Your task to perform on an android device: Add "beats solo 3" to the cart on target.com, then select checkout. Image 0: 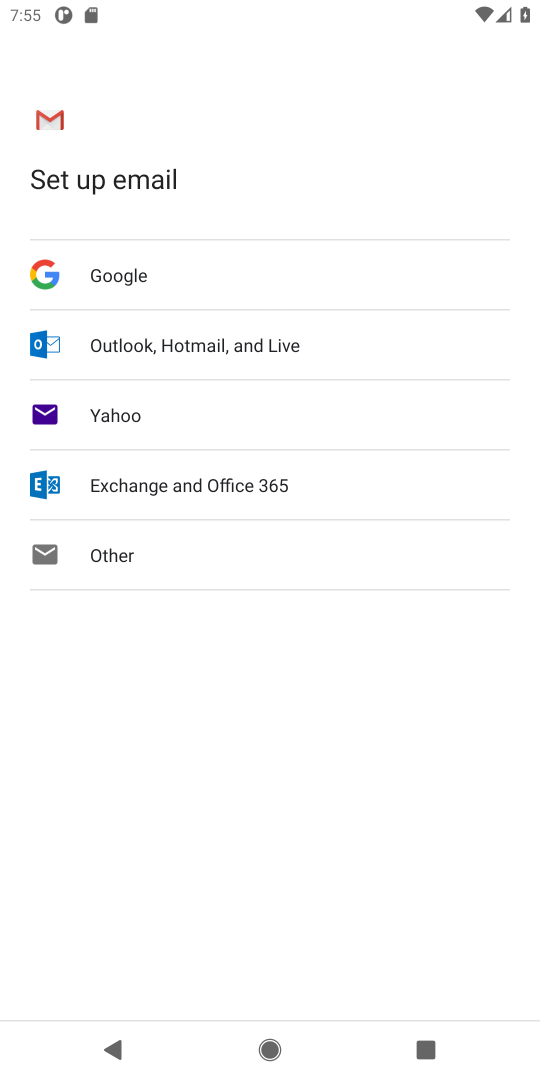
Step 0: press home button
Your task to perform on an android device: Add "beats solo 3" to the cart on target.com, then select checkout. Image 1: 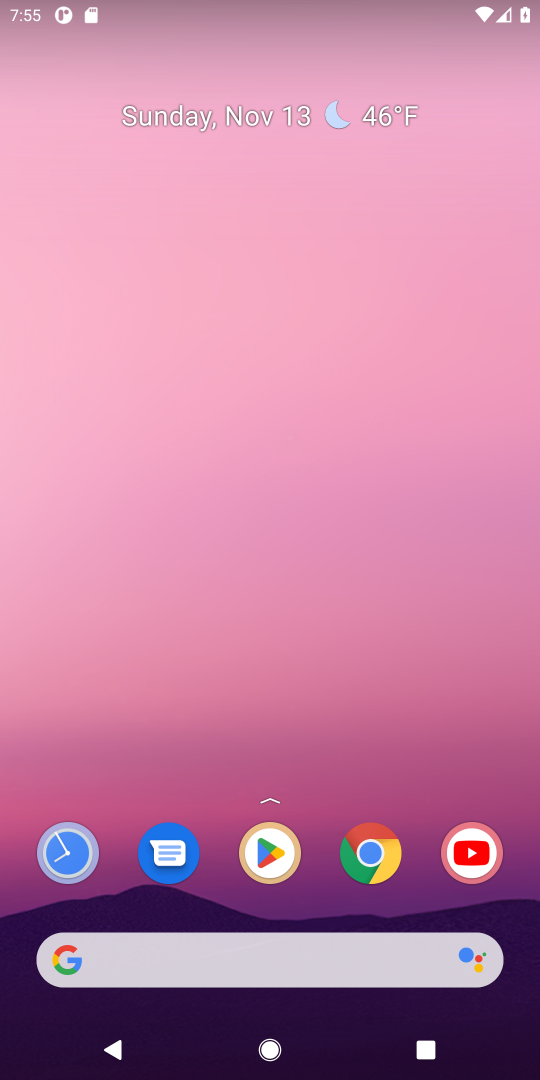
Step 1: click (115, 950)
Your task to perform on an android device: Add "beats solo 3" to the cart on target.com, then select checkout. Image 2: 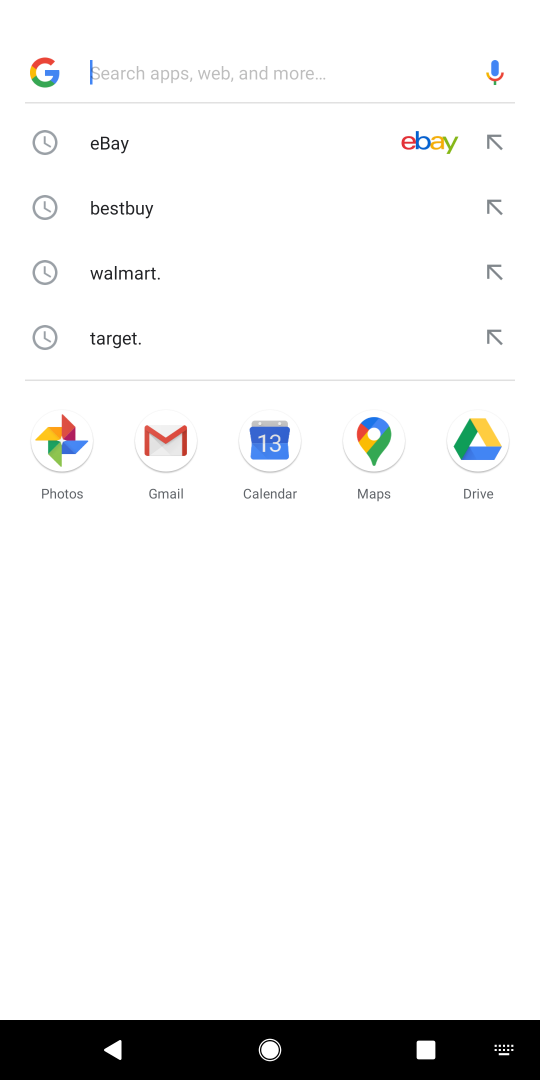
Step 2: type " target.com"
Your task to perform on an android device: Add "beats solo 3" to the cart on target.com, then select checkout. Image 3: 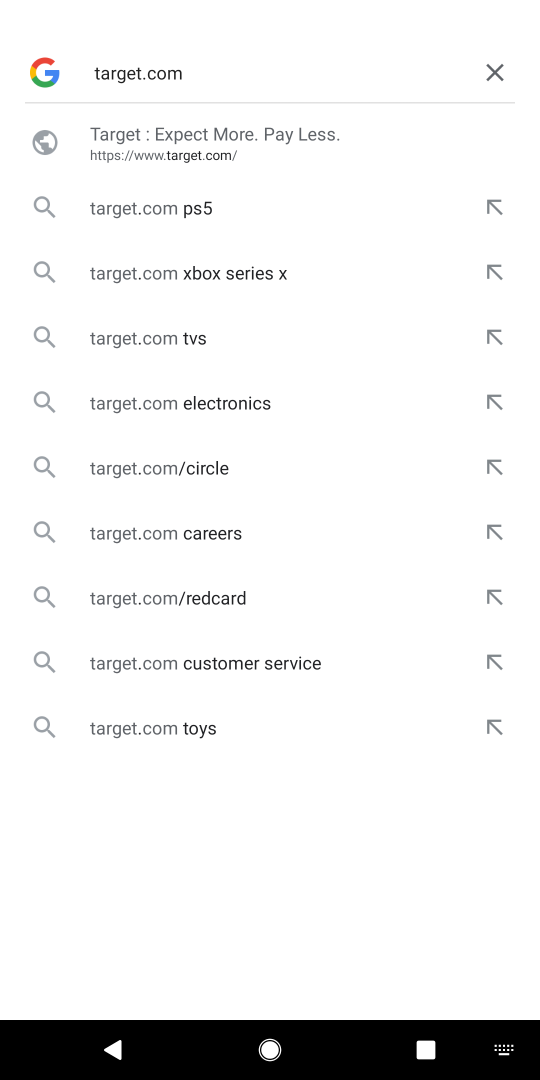
Step 3: press enter
Your task to perform on an android device: Add "beats solo 3" to the cart on target.com, then select checkout. Image 4: 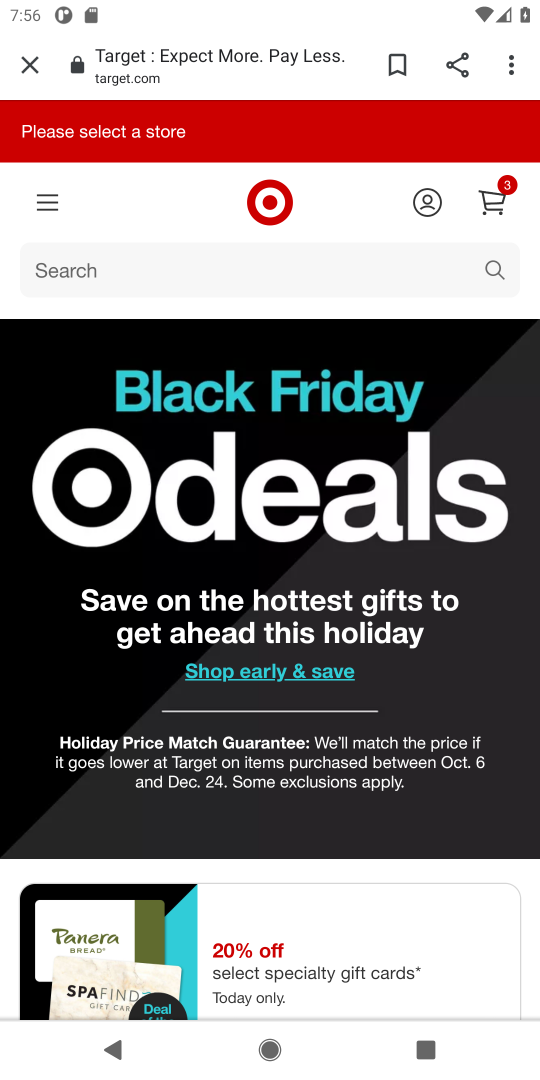
Step 4: click (94, 263)
Your task to perform on an android device: Add "beats solo 3" to the cart on target.com, then select checkout. Image 5: 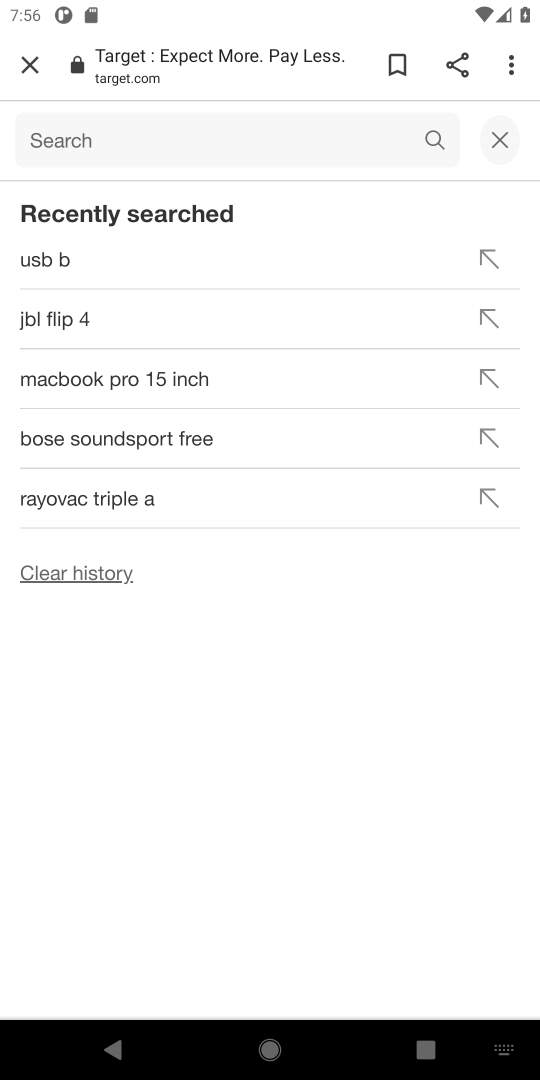
Step 5: type "beats solo 3"
Your task to perform on an android device: Add "beats solo 3" to the cart on target.com, then select checkout. Image 6: 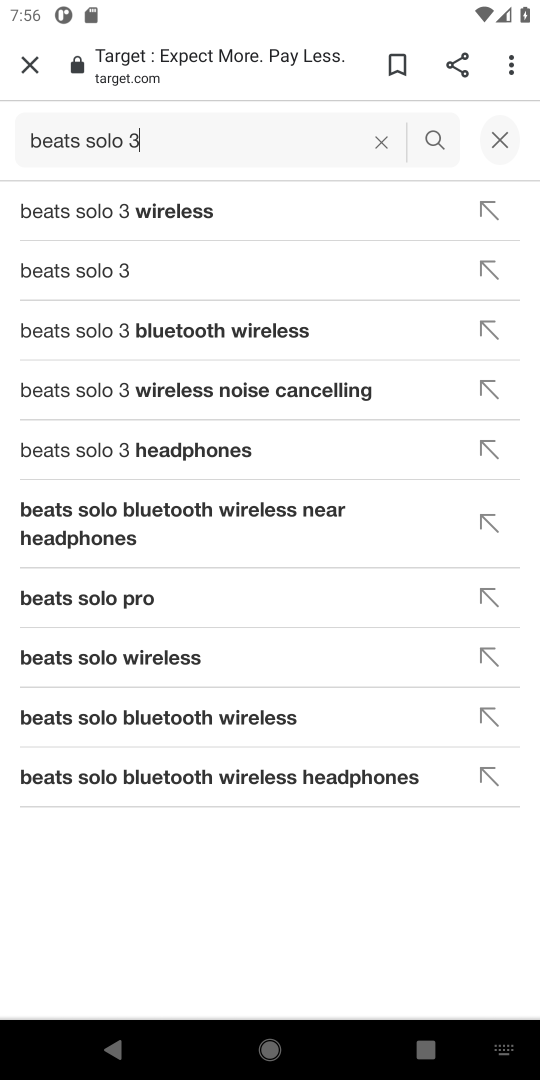
Step 6: press enter
Your task to perform on an android device: Add "beats solo 3" to the cart on target.com, then select checkout. Image 7: 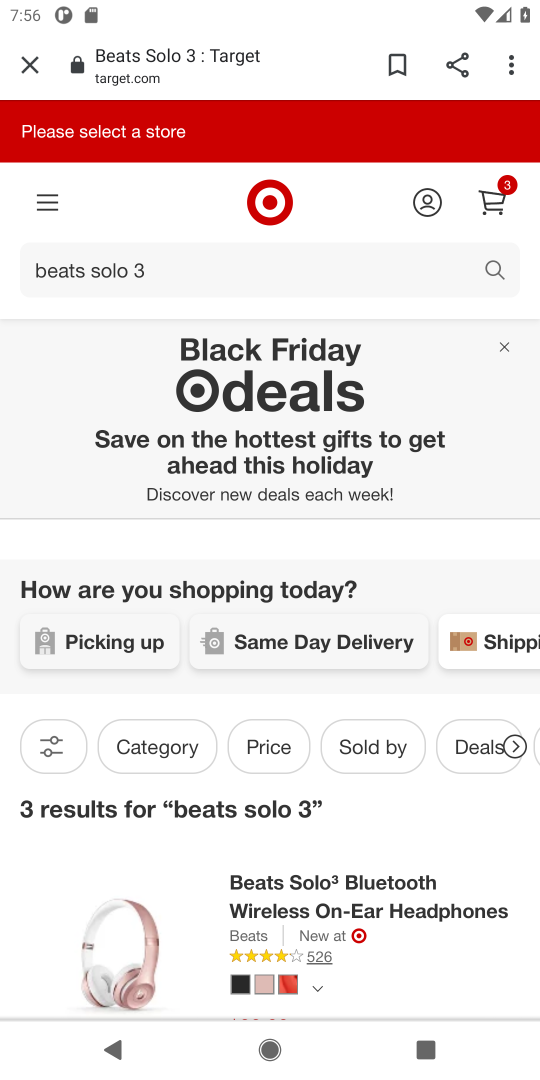
Step 7: drag from (334, 938) to (382, 578)
Your task to perform on an android device: Add "beats solo 3" to the cart on target.com, then select checkout. Image 8: 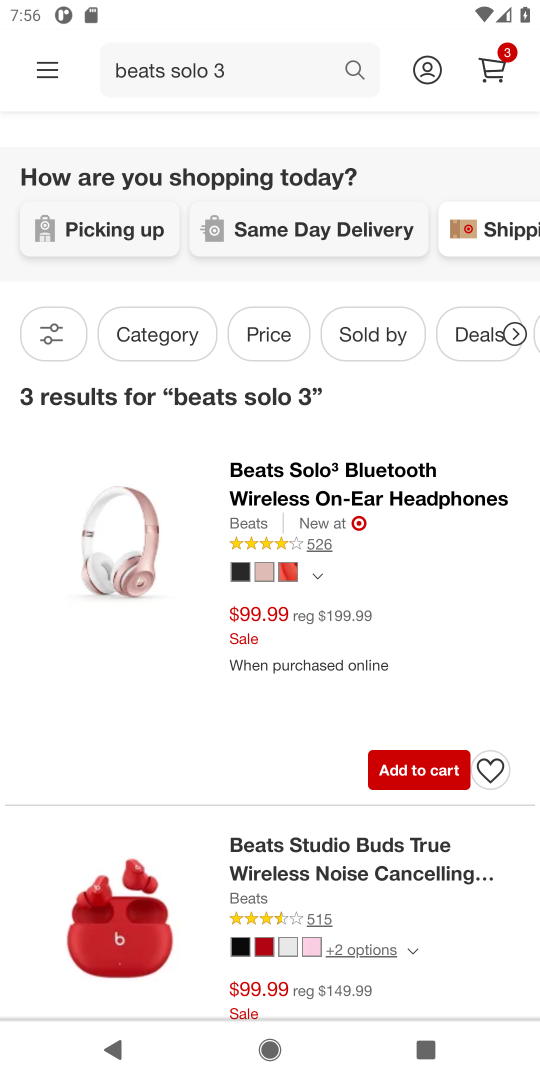
Step 8: click (409, 773)
Your task to perform on an android device: Add "beats solo 3" to the cart on target.com, then select checkout. Image 9: 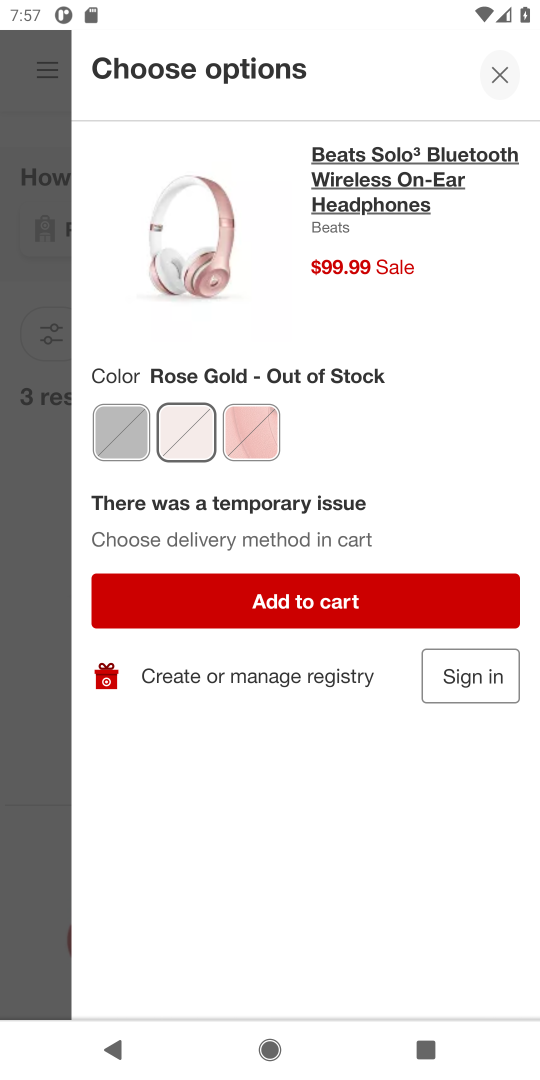
Step 9: click (295, 603)
Your task to perform on an android device: Add "beats solo 3" to the cart on target.com, then select checkout. Image 10: 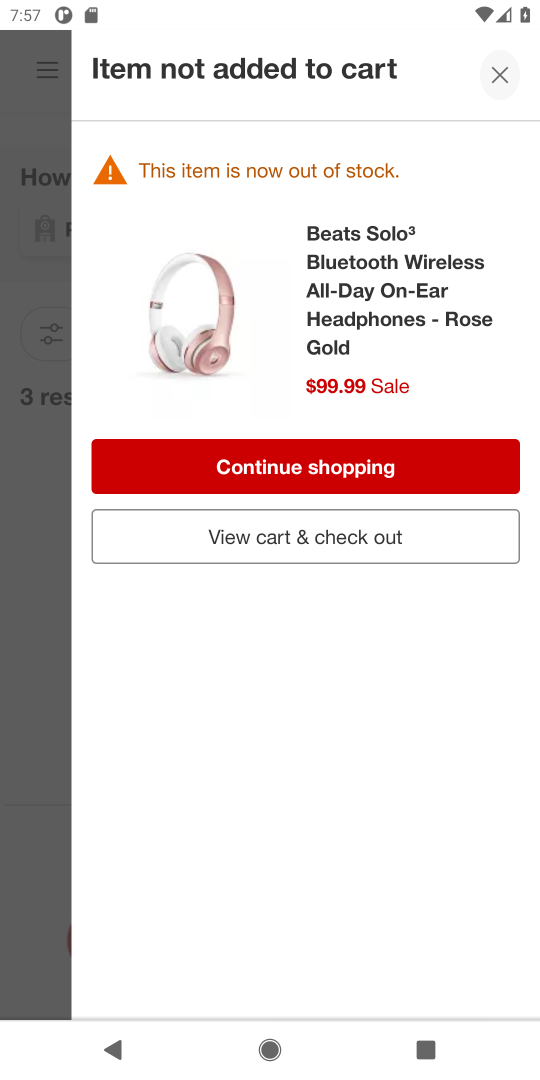
Step 10: click (274, 529)
Your task to perform on an android device: Add "beats solo 3" to the cart on target.com, then select checkout. Image 11: 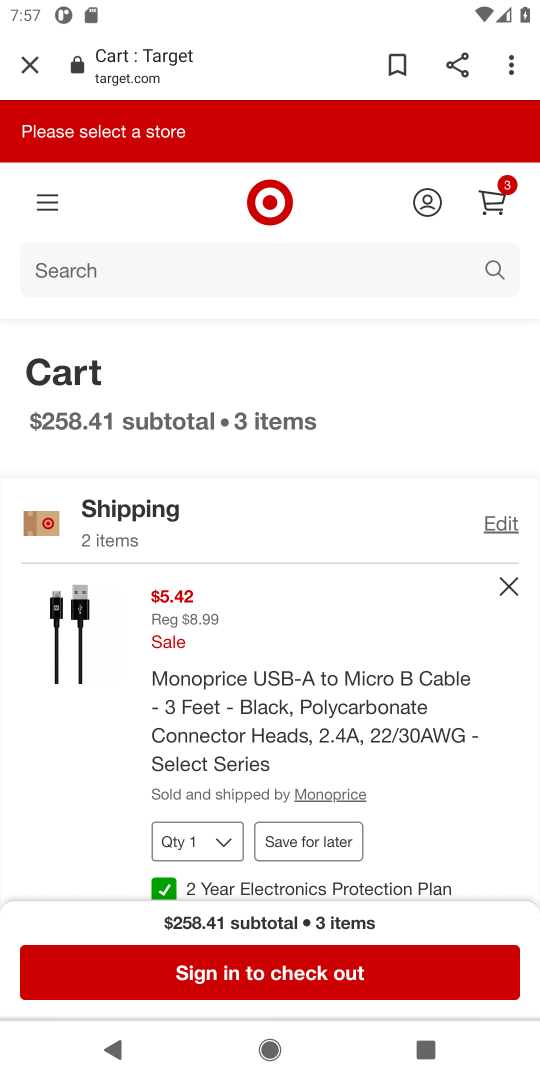
Step 11: click (317, 985)
Your task to perform on an android device: Add "beats solo 3" to the cart on target.com, then select checkout. Image 12: 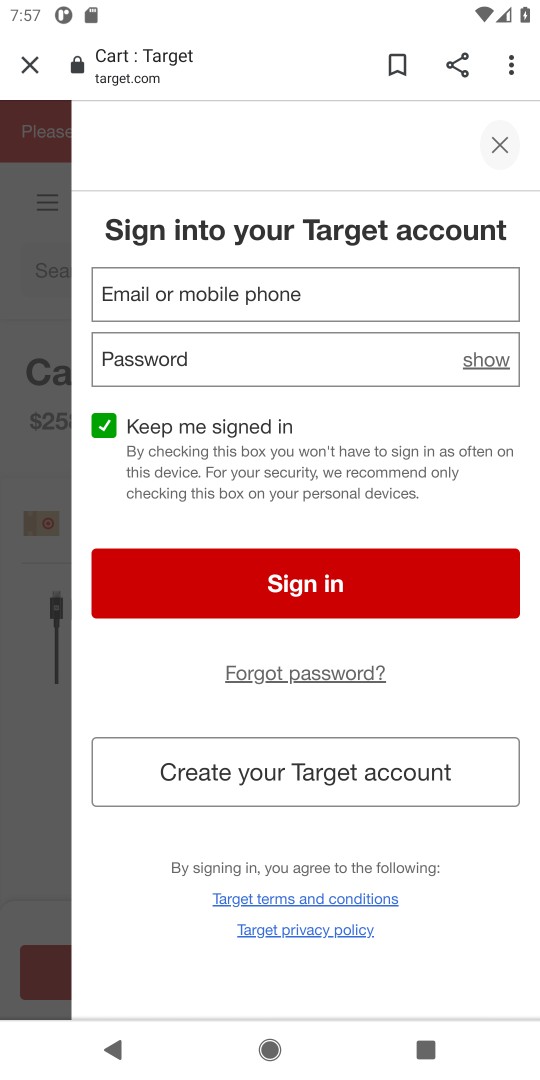
Step 12: task complete